Your task to perform on an android device: Open display settings Image 0: 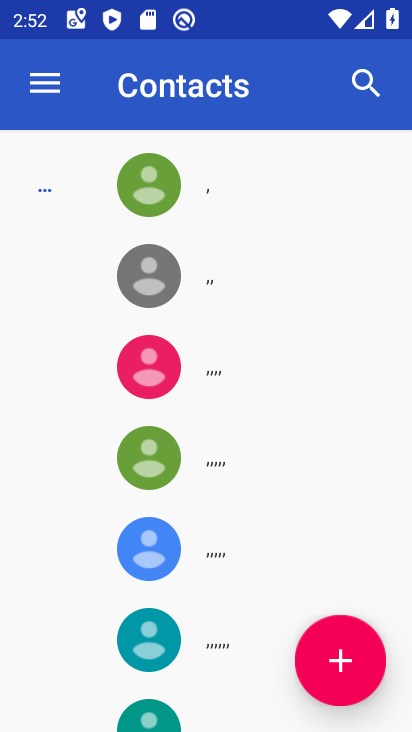
Step 0: press home button
Your task to perform on an android device: Open display settings Image 1: 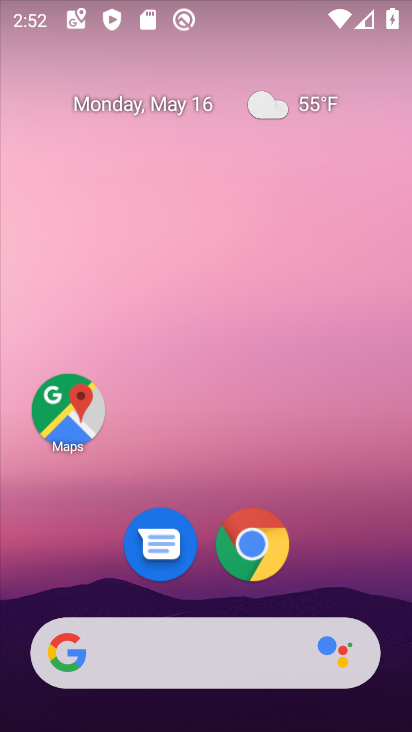
Step 1: drag from (383, 563) to (282, 93)
Your task to perform on an android device: Open display settings Image 2: 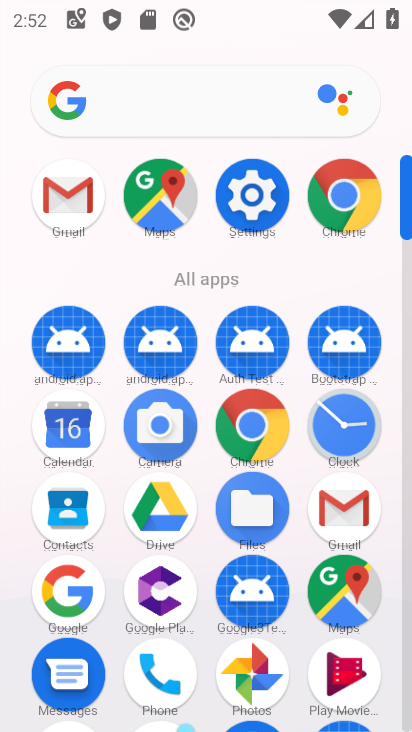
Step 2: click (260, 199)
Your task to perform on an android device: Open display settings Image 3: 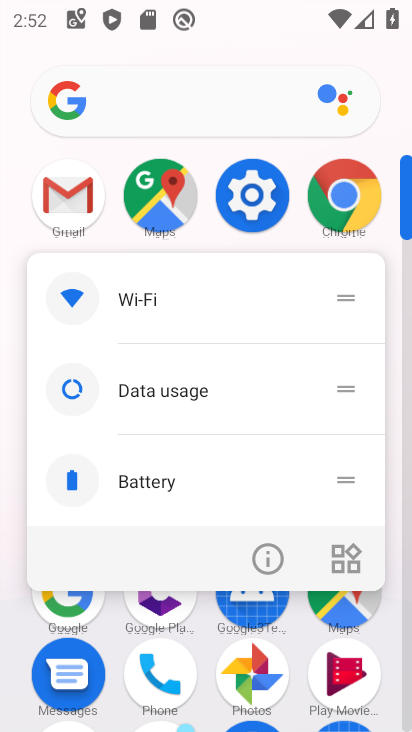
Step 3: click (260, 199)
Your task to perform on an android device: Open display settings Image 4: 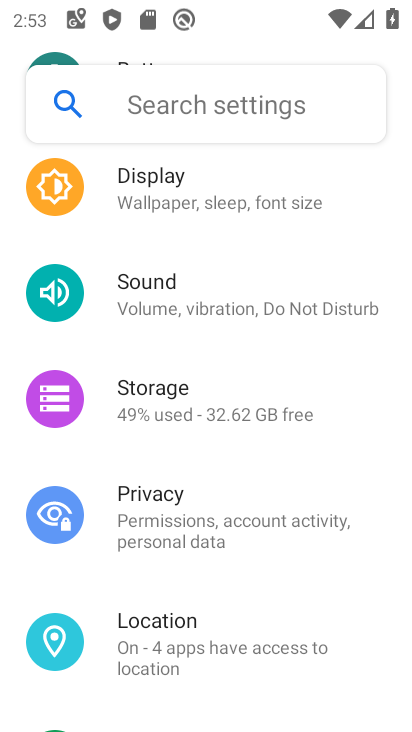
Step 4: click (116, 177)
Your task to perform on an android device: Open display settings Image 5: 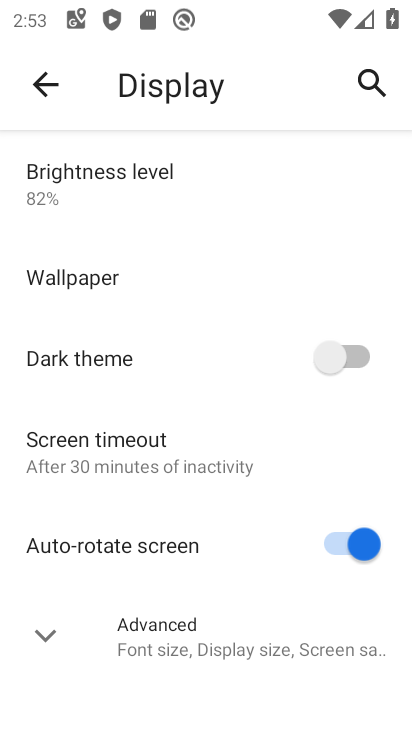
Step 5: task complete